Your task to perform on an android device: Search for Italian restaurants on Maps Image 0: 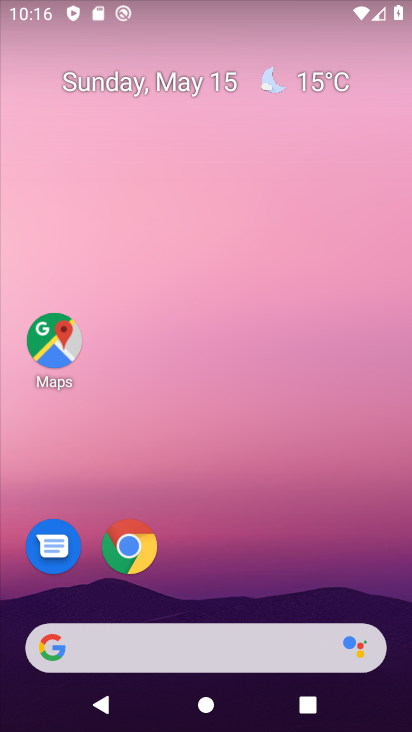
Step 0: click (61, 354)
Your task to perform on an android device: Search for Italian restaurants on Maps Image 1: 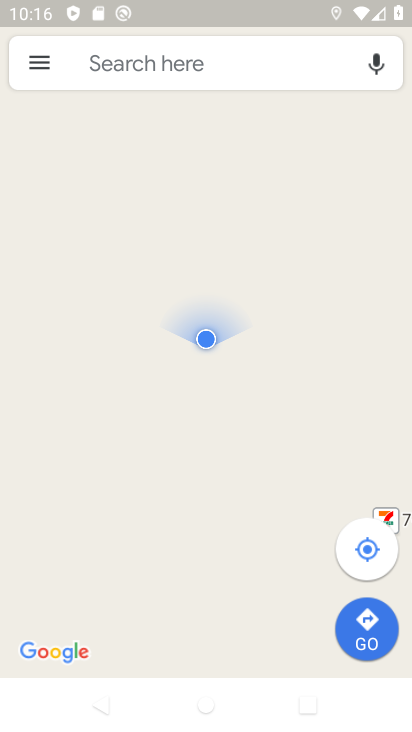
Step 1: click (221, 66)
Your task to perform on an android device: Search for Italian restaurants on Maps Image 2: 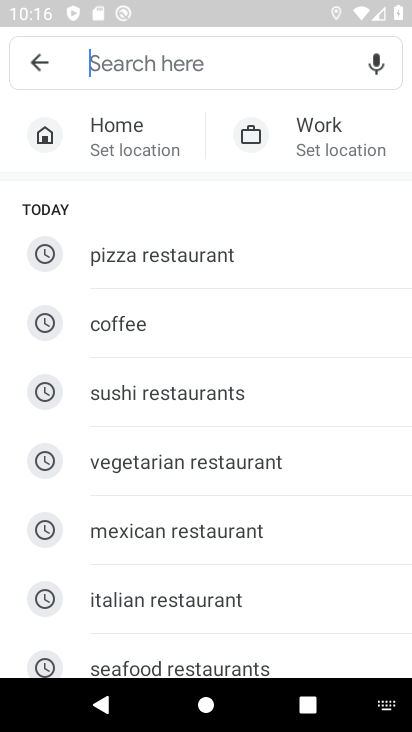
Step 2: click (235, 608)
Your task to perform on an android device: Search for Italian restaurants on Maps Image 3: 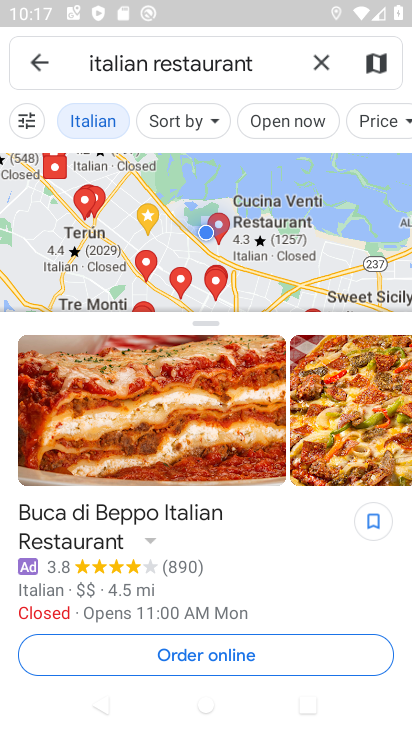
Step 3: task complete